Your task to perform on an android device: Turn on the flashlight Image 0: 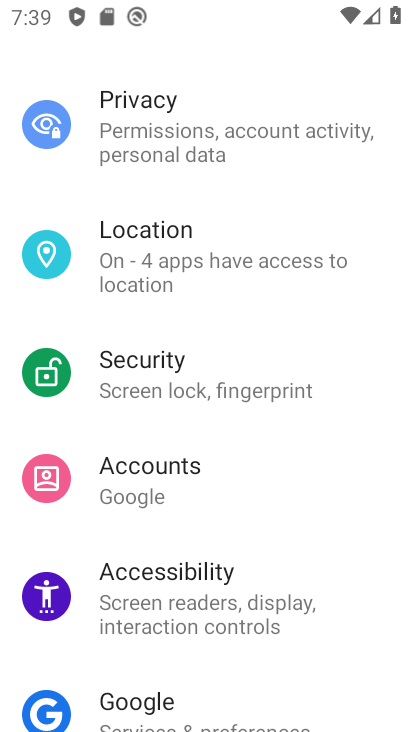
Step 0: press home button
Your task to perform on an android device: Turn on the flashlight Image 1: 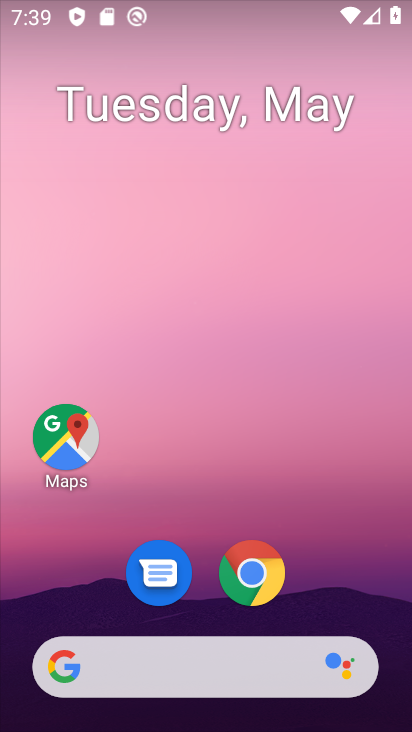
Step 1: drag from (202, 613) to (222, 258)
Your task to perform on an android device: Turn on the flashlight Image 2: 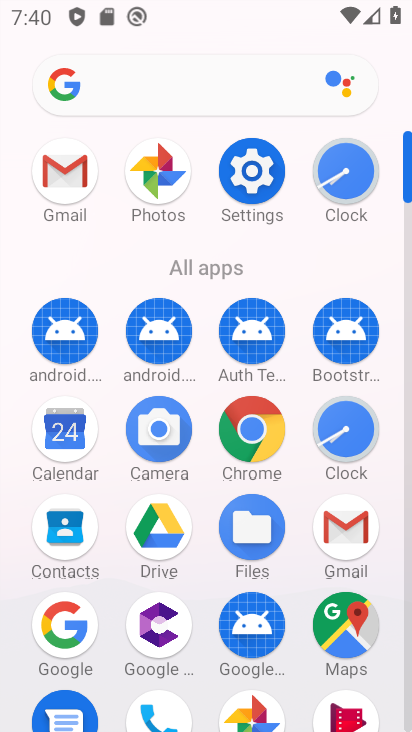
Step 2: click (256, 167)
Your task to perform on an android device: Turn on the flashlight Image 3: 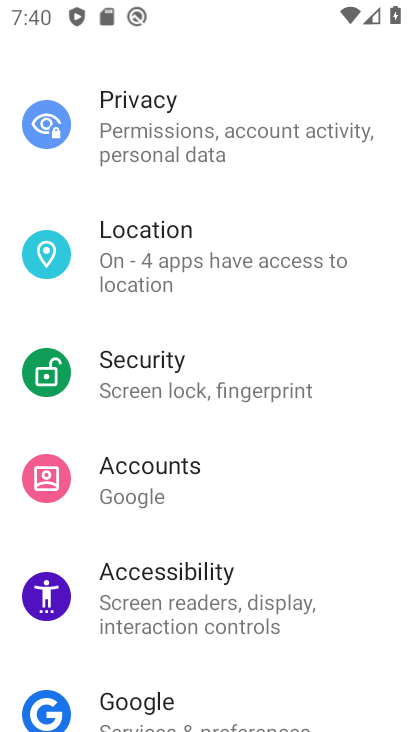
Step 3: drag from (172, 666) to (192, 728)
Your task to perform on an android device: Turn on the flashlight Image 4: 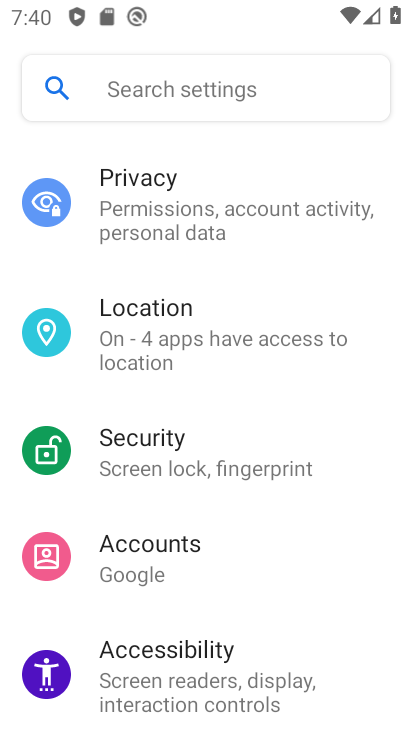
Step 4: drag from (195, 177) to (173, 482)
Your task to perform on an android device: Turn on the flashlight Image 5: 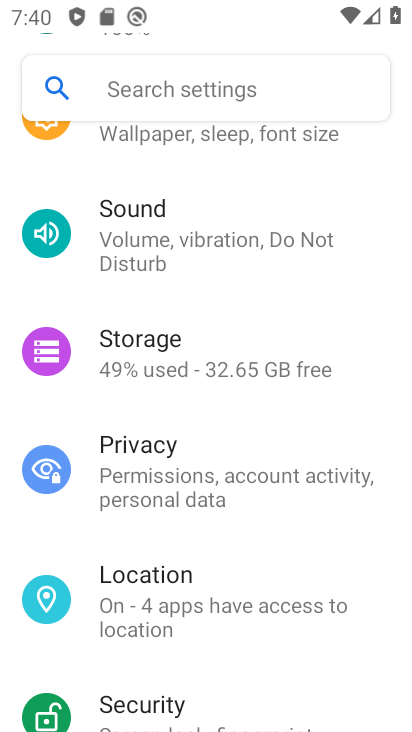
Step 5: drag from (174, 178) to (196, 446)
Your task to perform on an android device: Turn on the flashlight Image 6: 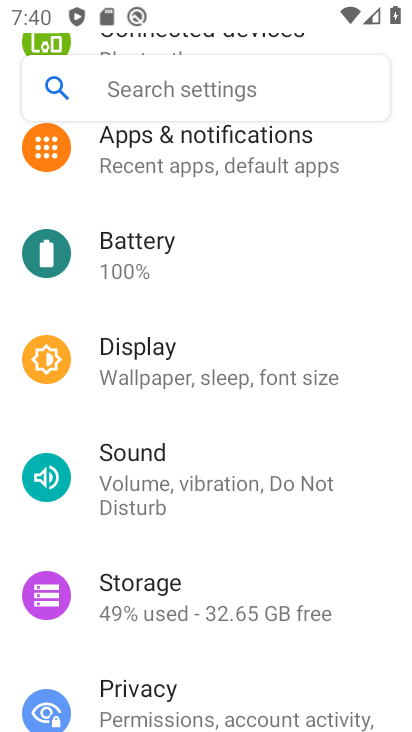
Step 6: click (180, 355)
Your task to perform on an android device: Turn on the flashlight Image 7: 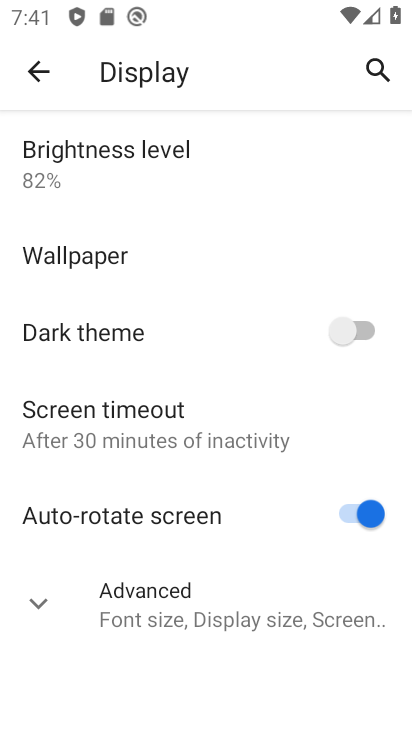
Step 7: task complete